Your task to perform on an android device: clear all cookies in the chrome app Image 0: 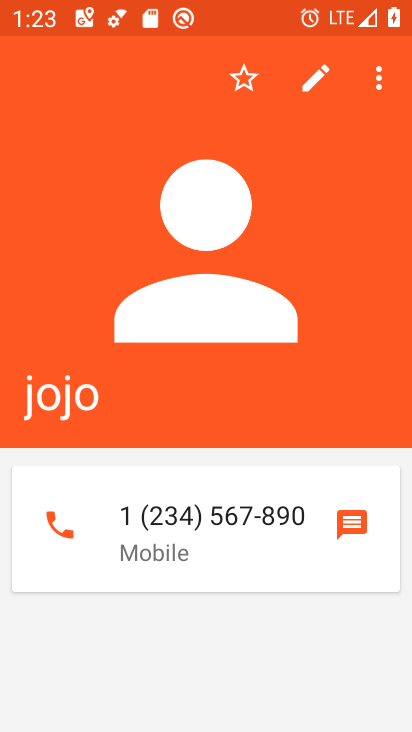
Step 0: press home button
Your task to perform on an android device: clear all cookies in the chrome app Image 1: 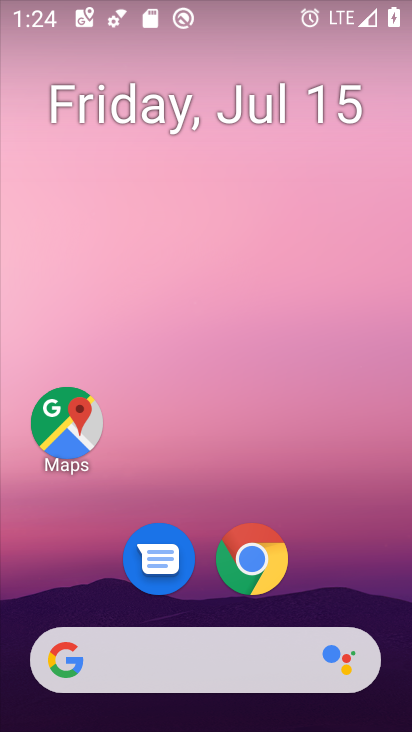
Step 1: drag from (382, 603) to (370, 137)
Your task to perform on an android device: clear all cookies in the chrome app Image 2: 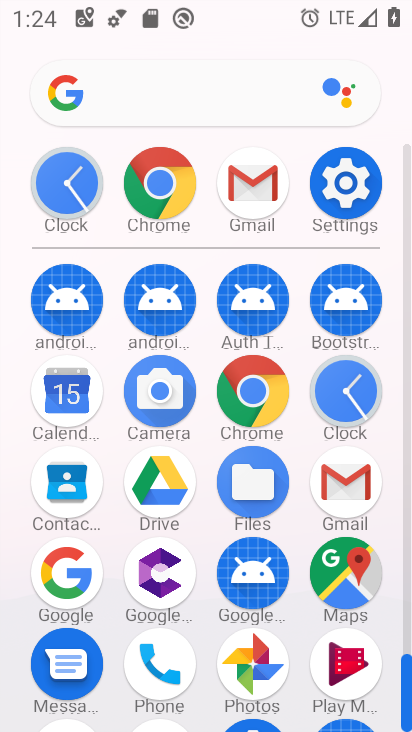
Step 2: click (260, 402)
Your task to perform on an android device: clear all cookies in the chrome app Image 3: 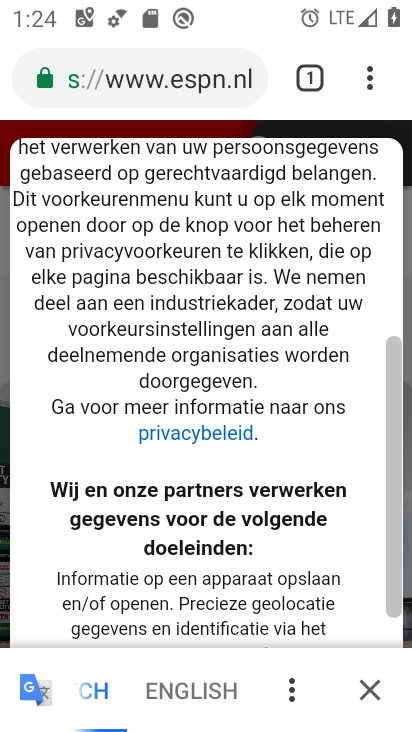
Step 3: click (368, 84)
Your task to perform on an android device: clear all cookies in the chrome app Image 4: 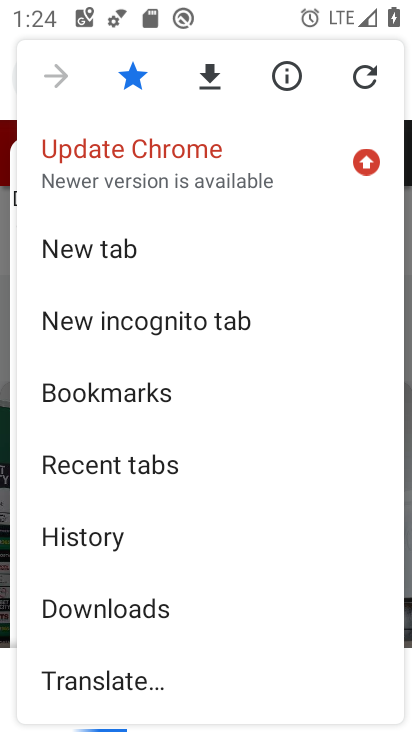
Step 4: drag from (272, 596) to (286, 506)
Your task to perform on an android device: clear all cookies in the chrome app Image 5: 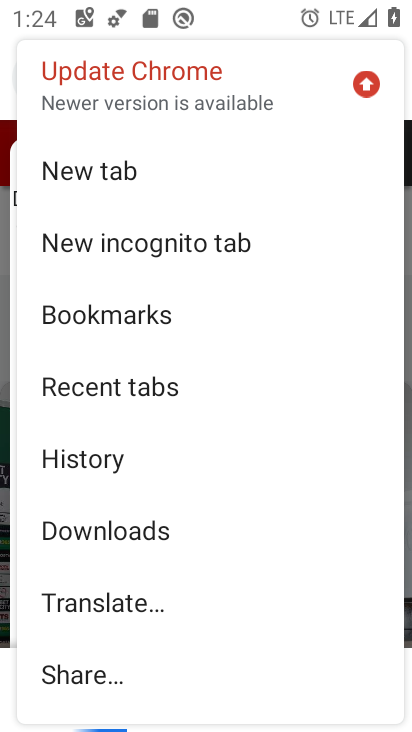
Step 5: drag from (303, 624) to (336, 374)
Your task to perform on an android device: clear all cookies in the chrome app Image 6: 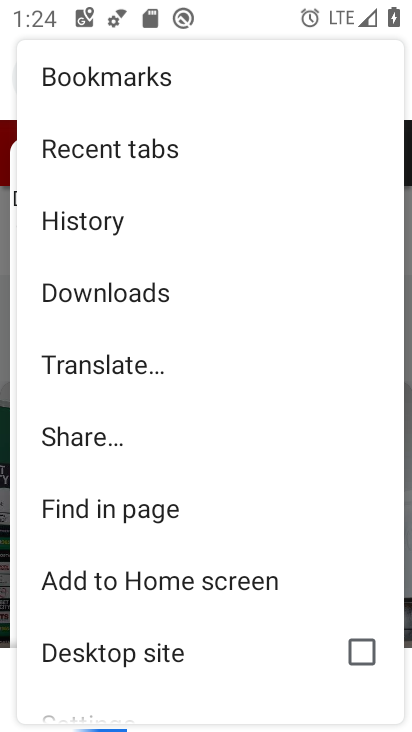
Step 6: drag from (314, 546) to (317, 341)
Your task to perform on an android device: clear all cookies in the chrome app Image 7: 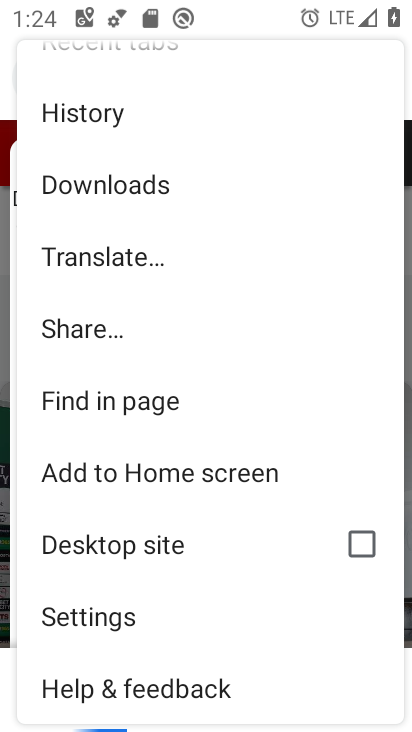
Step 7: click (236, 615)
Your task to perform on an android device: clear all cookies in the chrome app Image 8: 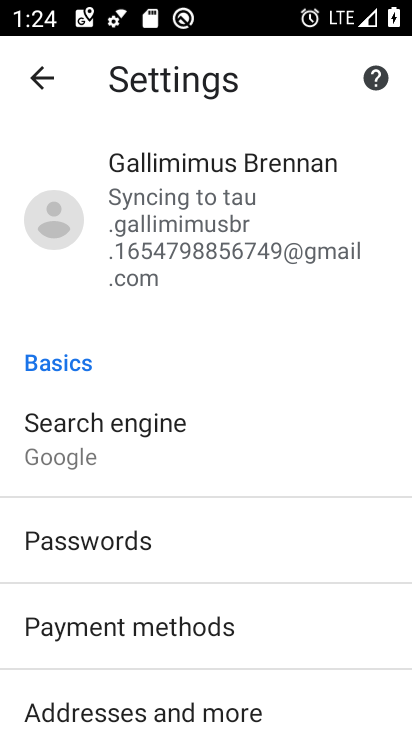
Step 8: drag from (283, 567) to (301, 470)
Your task to perform on an android device: clear all cookies in the chrome app Image 9: 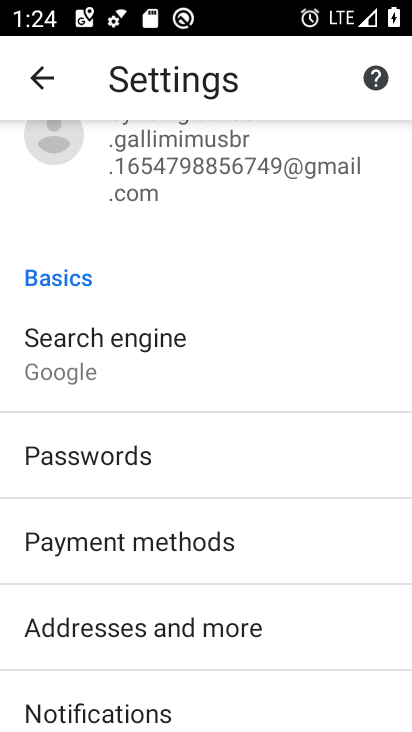
Step 9: drag from (302, 580) to (307, 465)
Your task to perform on an android device: clear all cookies in the chrome app Image 10: 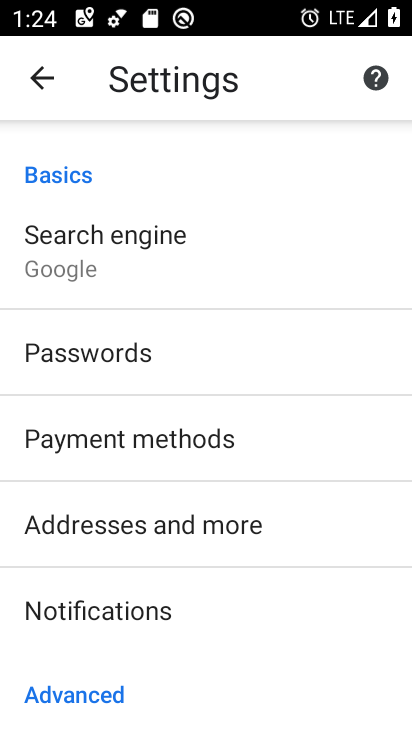
Step 10: drag from (321, 570) to (325, 448)
Your task to perform on an android device: clear all cookies in the chrome app Image 11: 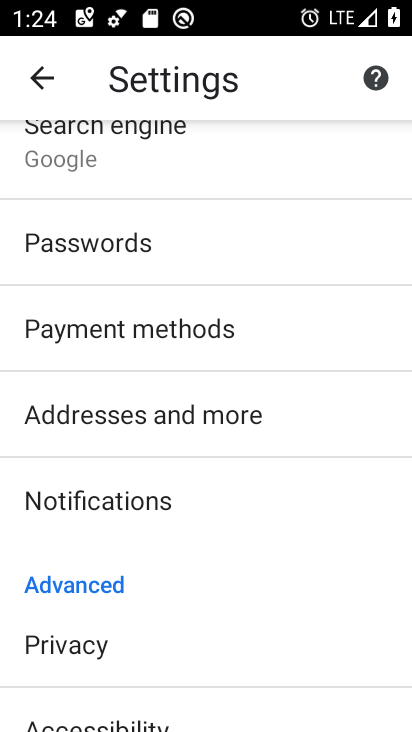
Step 11: drag from (322, 559) to (317, 448)
Your task to perform on an android device: clear all cookies in the chrome app Image 12: 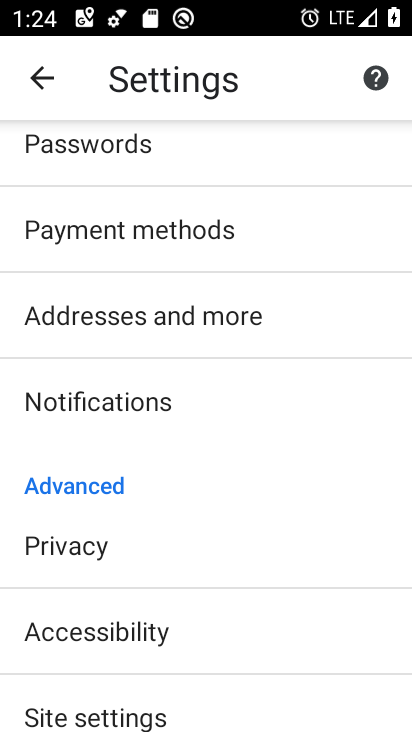
Step 12: drag from (305, 588) to (305, 447)
Your task to perform on an android device: clear all cookies in the chrome app Image 13: 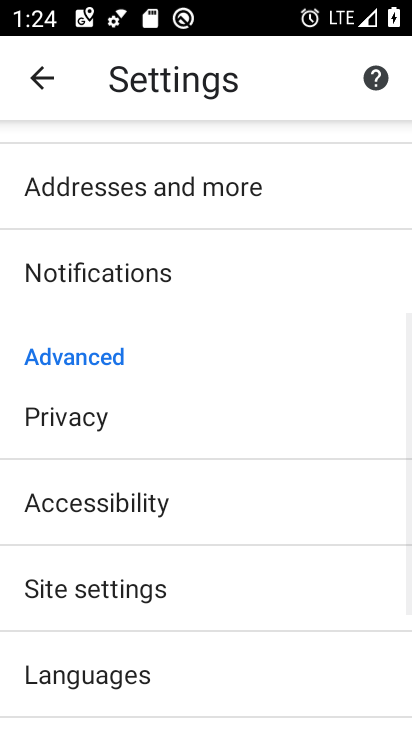
Step 13: drag from (304, 601) to (304, 457)
Your task to perform on an android device: clear all cookies in the chrome app Image 14: 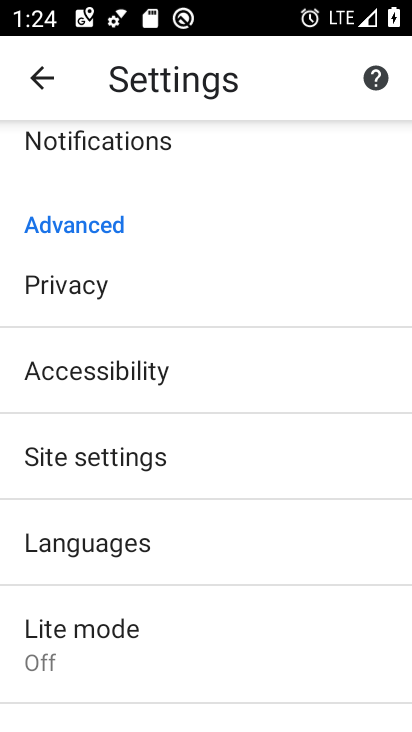
Step 14: click (239, 297)
Your task to perform on an android device: clear all cookies in the chrome app Image 15: 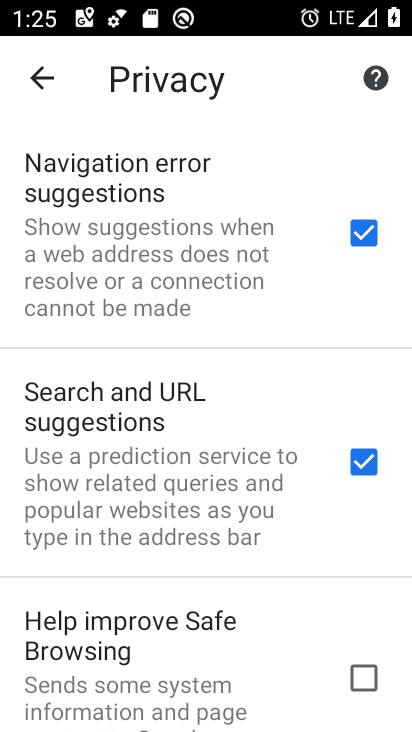
Step 15: drag from (290, 497) to (298, 410)
Your task to perform on an android device: clear all cookies in the chrome app Image 16: 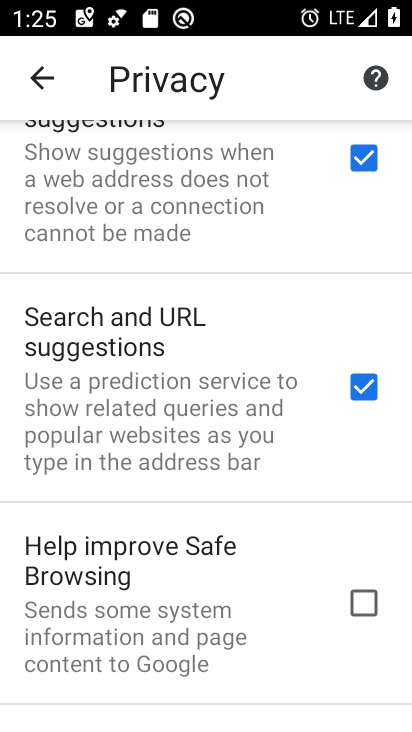
Step 16: drag from (297, 519) to (293, 423)
Your task to perform on an android device: clear all cookies in the chrome app Image 17: 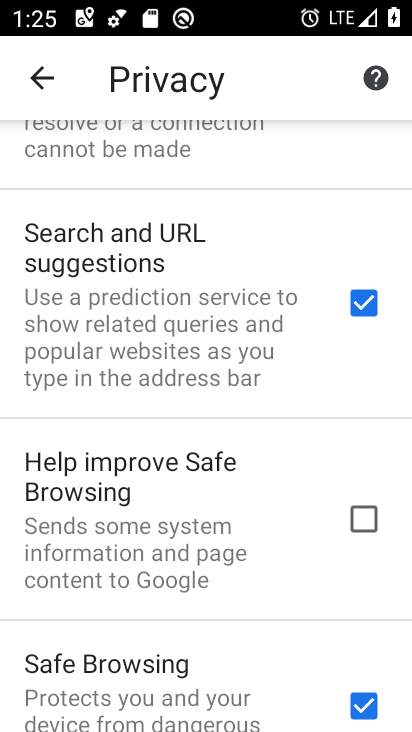
Step 17: drag from (288, 553) to (298, 429)
Your task to perform on an android device: clear all cookies in the chrome app Image 18: 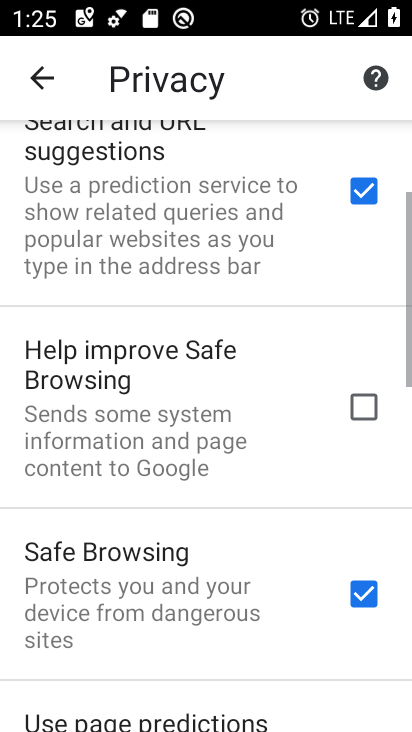
Step 18: drag from (281, 591) to (286, 477)
Your task to perform on an android device: clear all cookies in the chrome app Image 19: 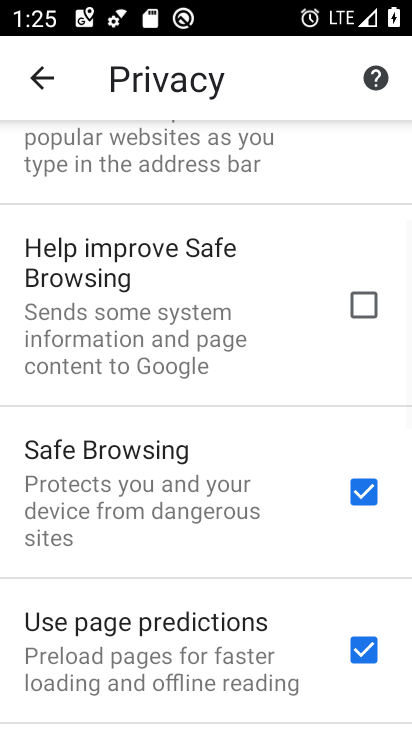
Step 19: drag from (290, 601) to (294, 487)
Your task to perform on an android device: clear all cookies in the chrome app Image 20: 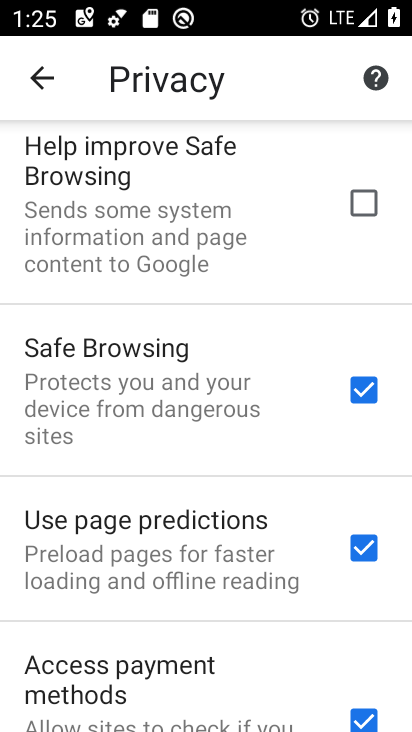
Step 20: drag from (306, 676) to (314, 495)
Your task to perform on an android device: clear all cookies in the chrome app Image 21: 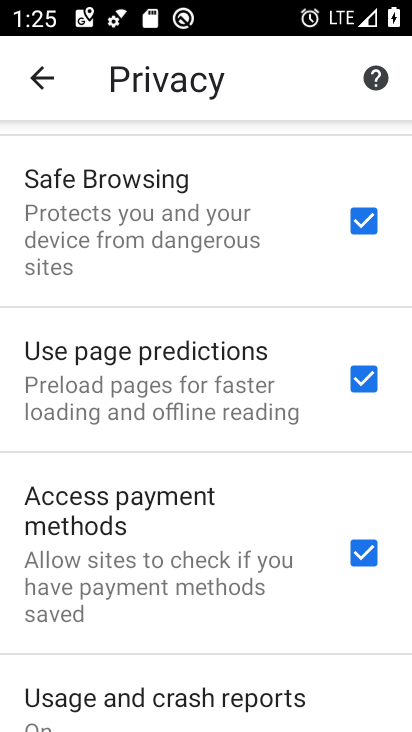
Step 21: drag from (289, 606) to (287, 487)
Your task to perform on an android device: clear all cookies in the chrome app Image 22: 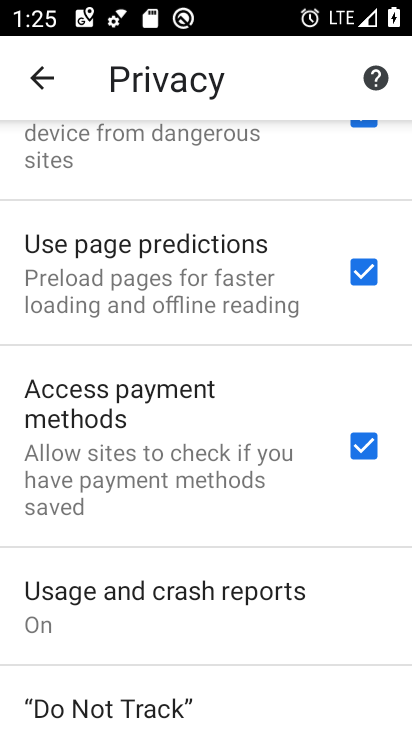
Step 22: drag from (304, 646) to (306, 514)
Your task to perform on an android device: clear all cookies in the chrome app Image 23: 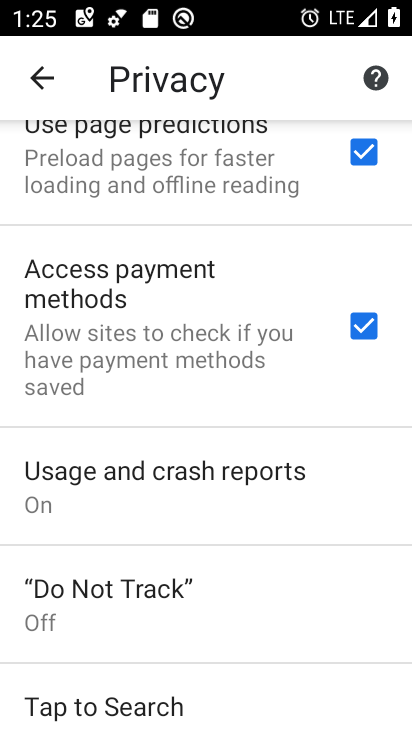
Step 23: drag from (307, 637) to (310, 489)
Your task to perform on an android device: clear all cookies in the chrome app Image 24: 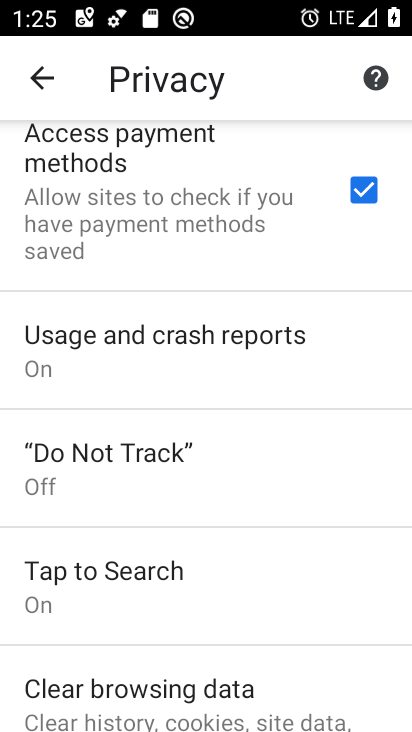
Step 24: drag from (309, 659) to (311, 541)
Your task to perform on an android device: clear all cookies in the chrome app Image 25: 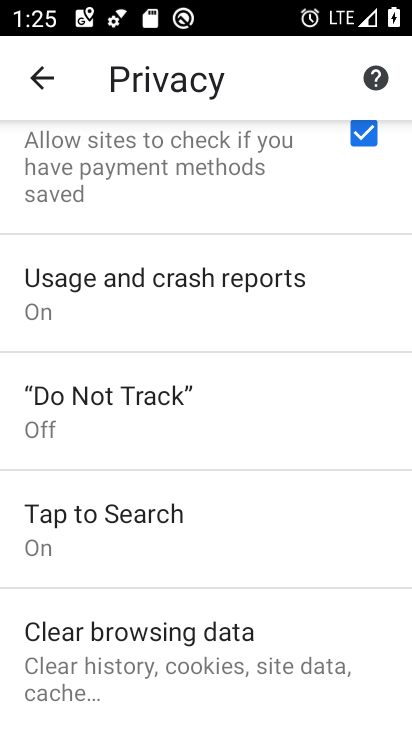
Step 25: click (293, 656)
Your task to perform on an android device: clear all cookies in the chrome app Image 26: 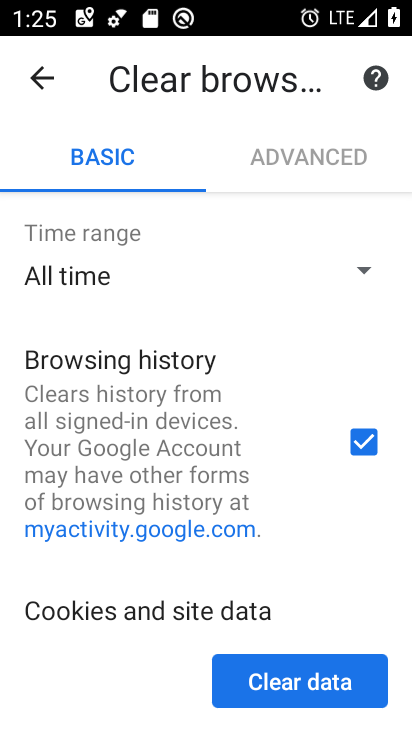
Step 26: click (333, 678)
Your task to perform on an android device: clear all cookies in the chrome app Image 27: 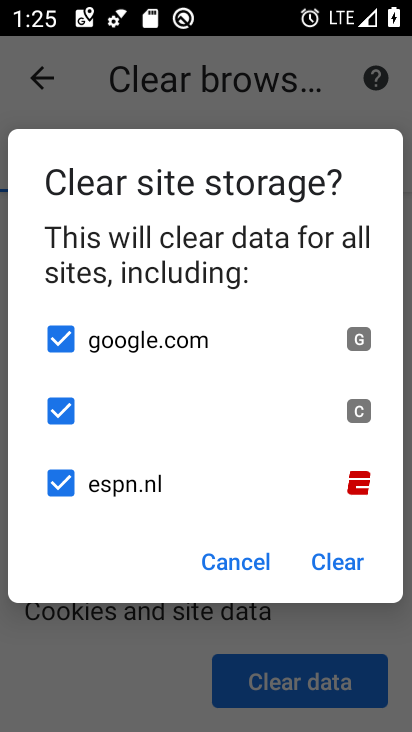
Step 27: click (335, 561)
Your task to perform on an android device: clear all cookies in the chrome app Image 28: 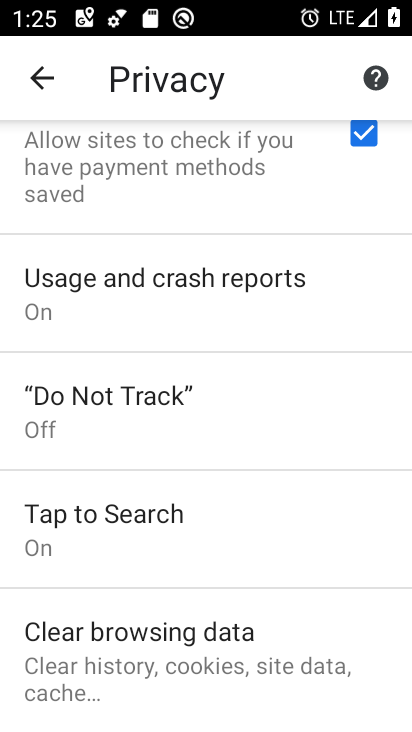
Step 28: task complete